Your task to perform on an android device: open app "Cash App" (install if not already installed) and go to login screen Image 0: 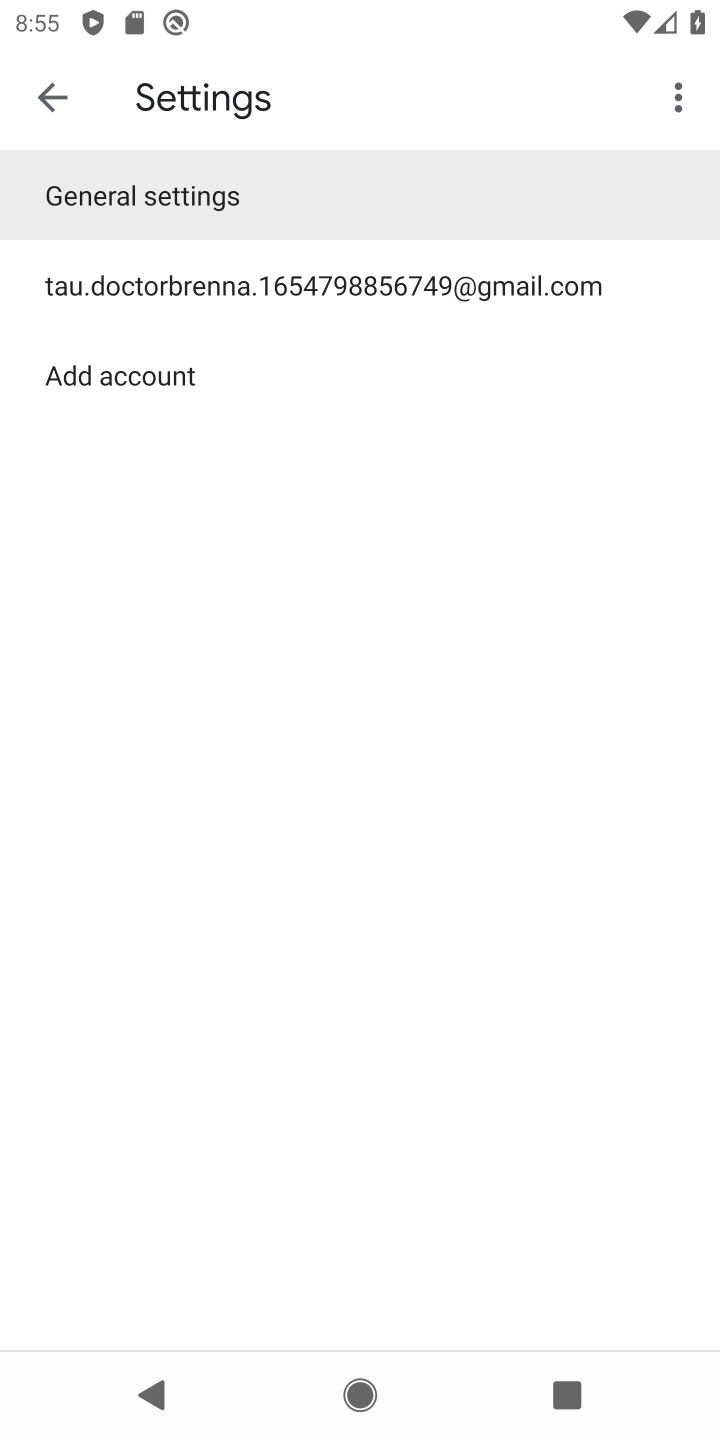
Step 0: press home button
Your task to perform on an android device: open app "Cash App" (install if not already installed) and go to login screen Image 1: 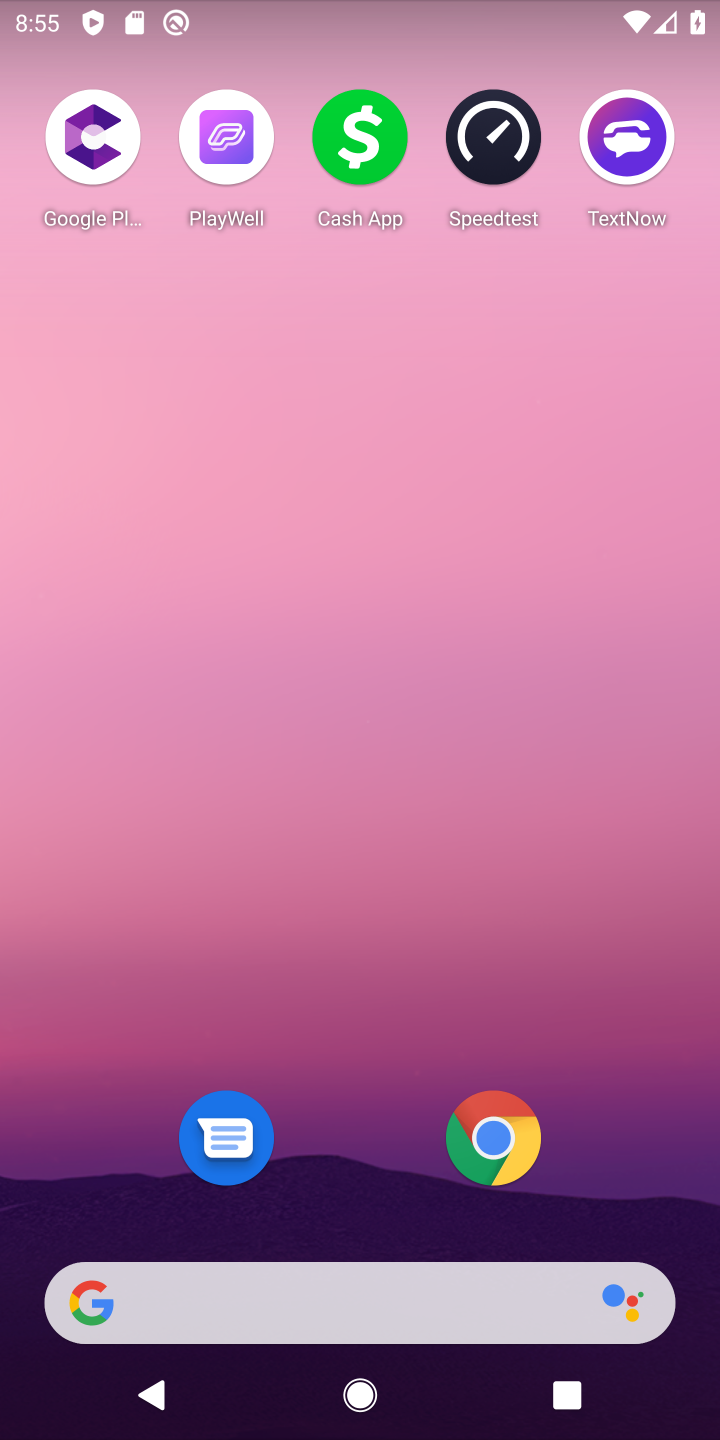
Step 1: drag from (654, 1182) to (592, 77)
Your task to perform on an android device: open app "Cash App" (install if not already installed) and go to login screen Image 2: 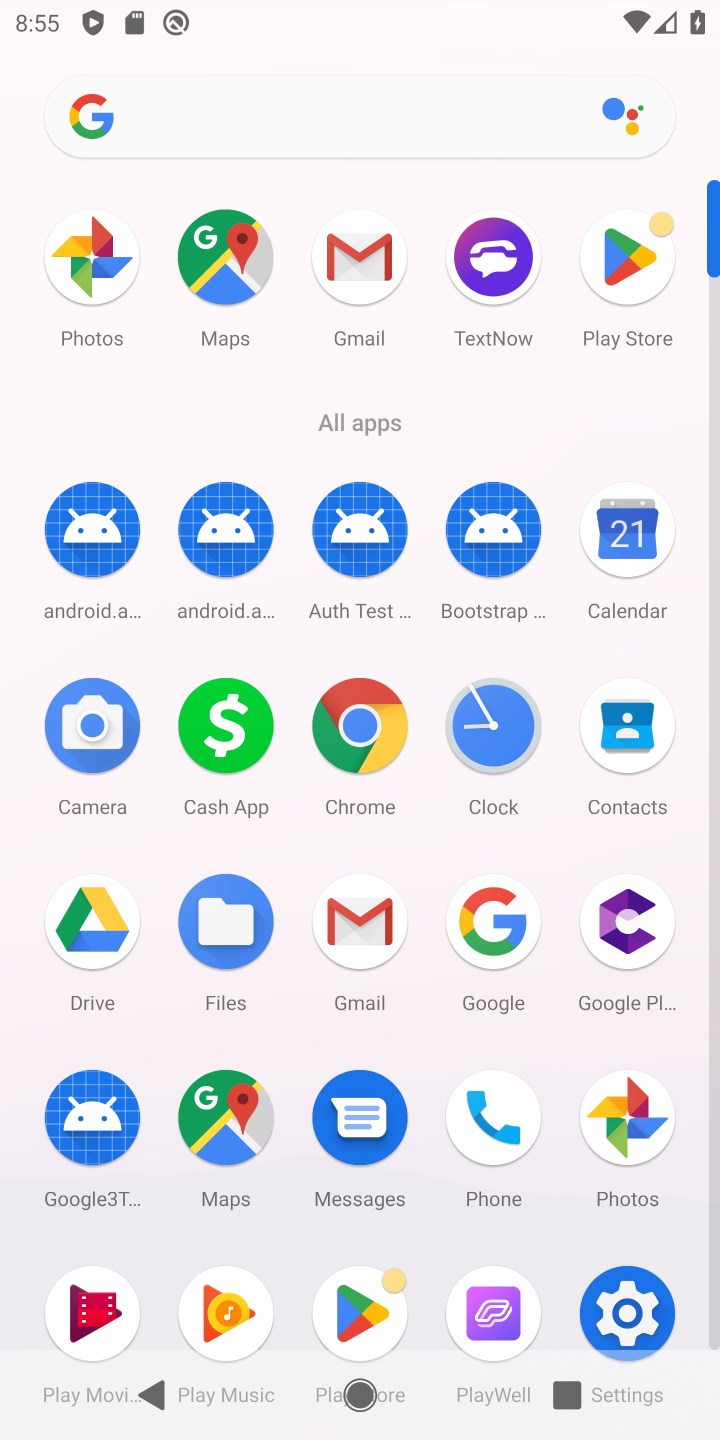
Step 2: click (629, 255)
Your task to perform on an android device: open app "Cash App" (install if not already installed) and go to login screen Image 3: 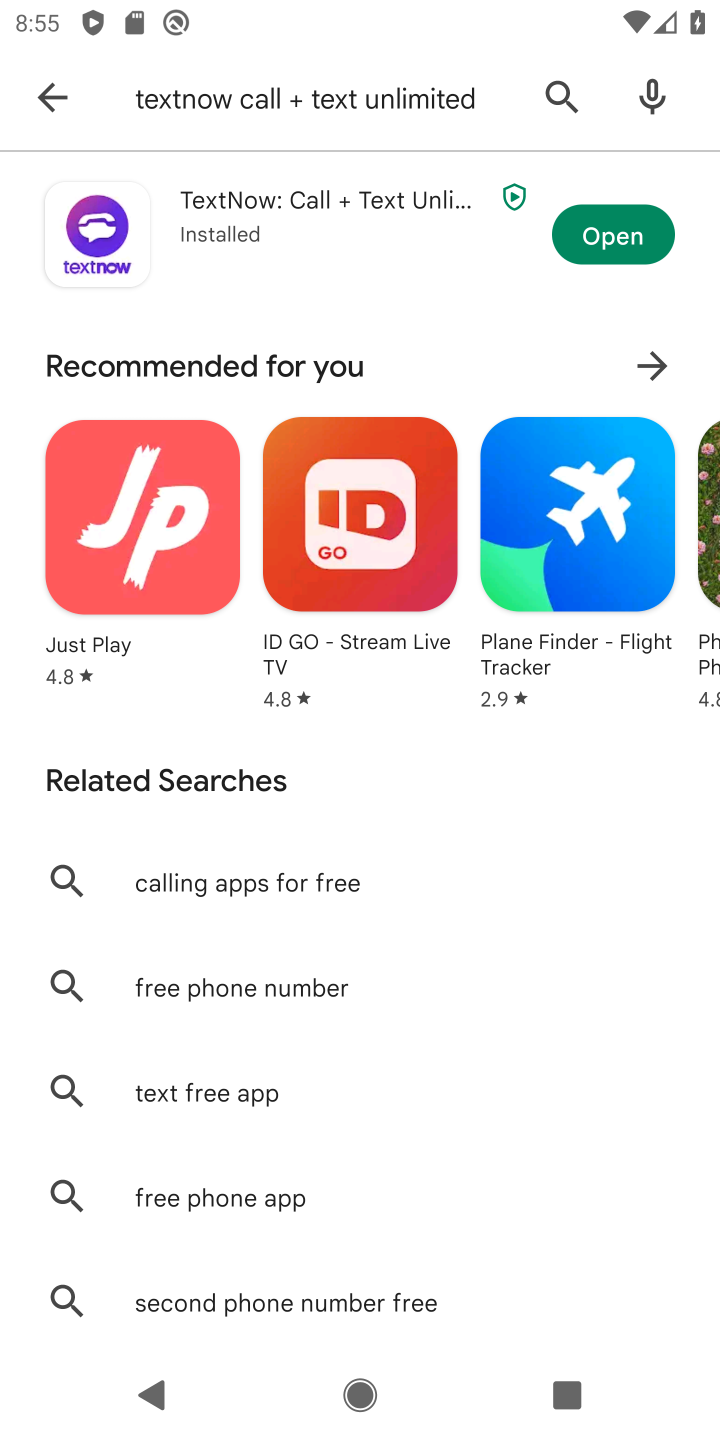
Step 3: press back button
Your task to perform on an android device: open app "Cash App" (install if not already installed) and go to login screen Image 4: 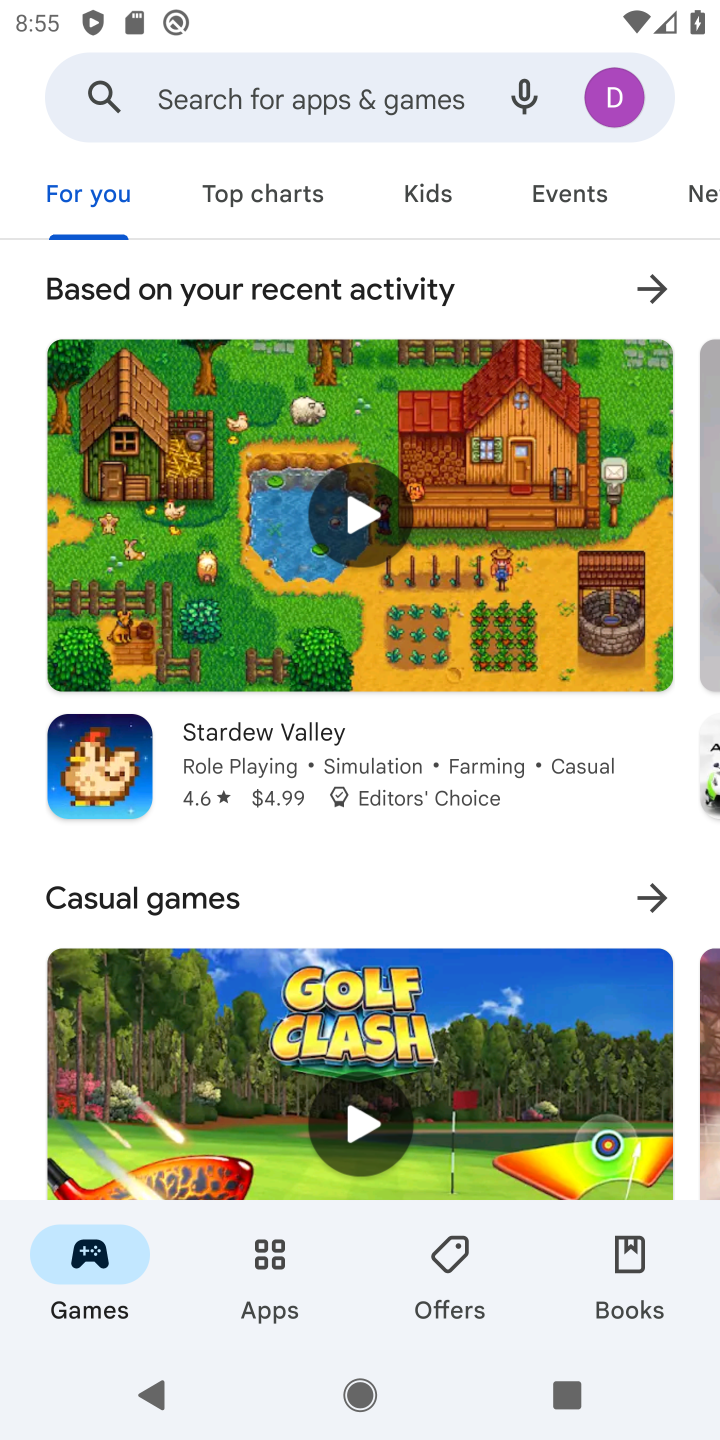
Step 4: click (349, 79)
Your task to perform on an android device: open app "Cash App" (install if not already installed) and go to login screen Image 5: 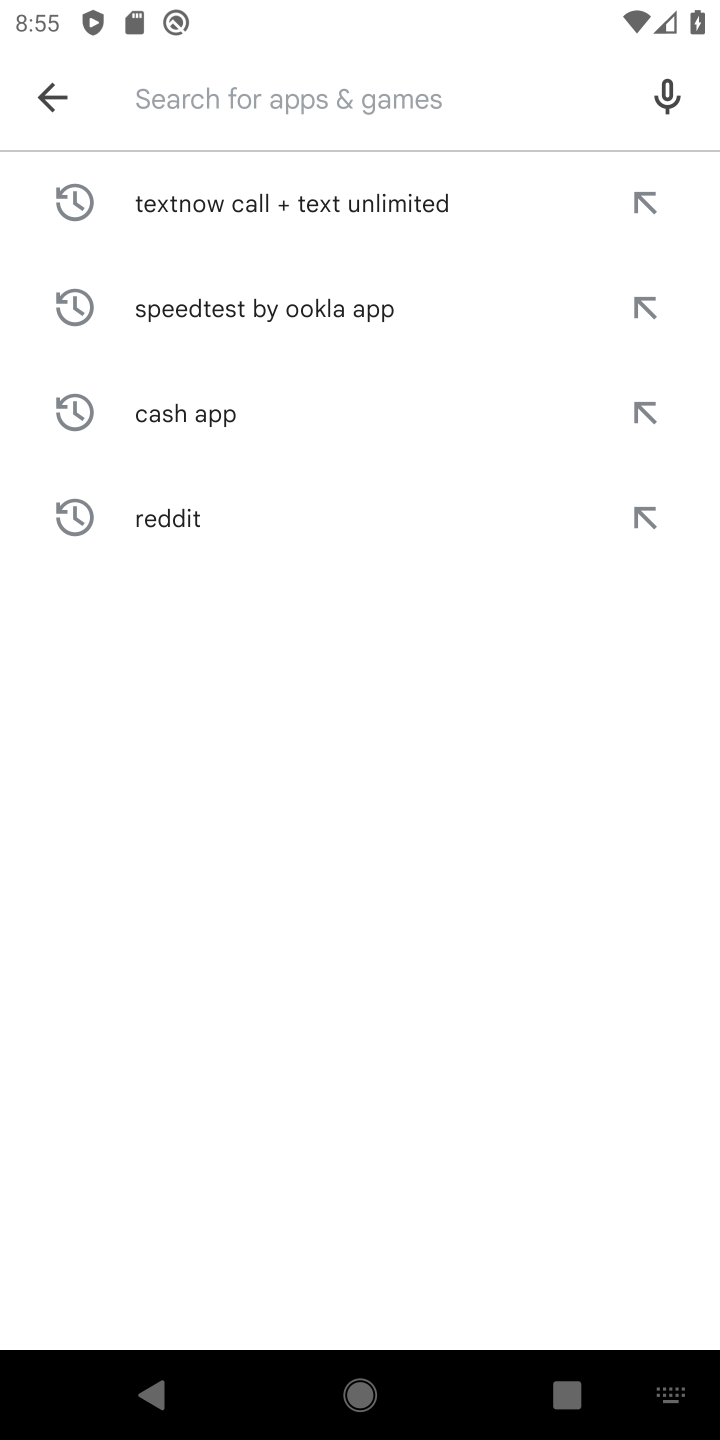
Step 5: press enter
Your task to perform on an android device: open app "Cash App" (install if not already installed) and go to login screen Image 6: 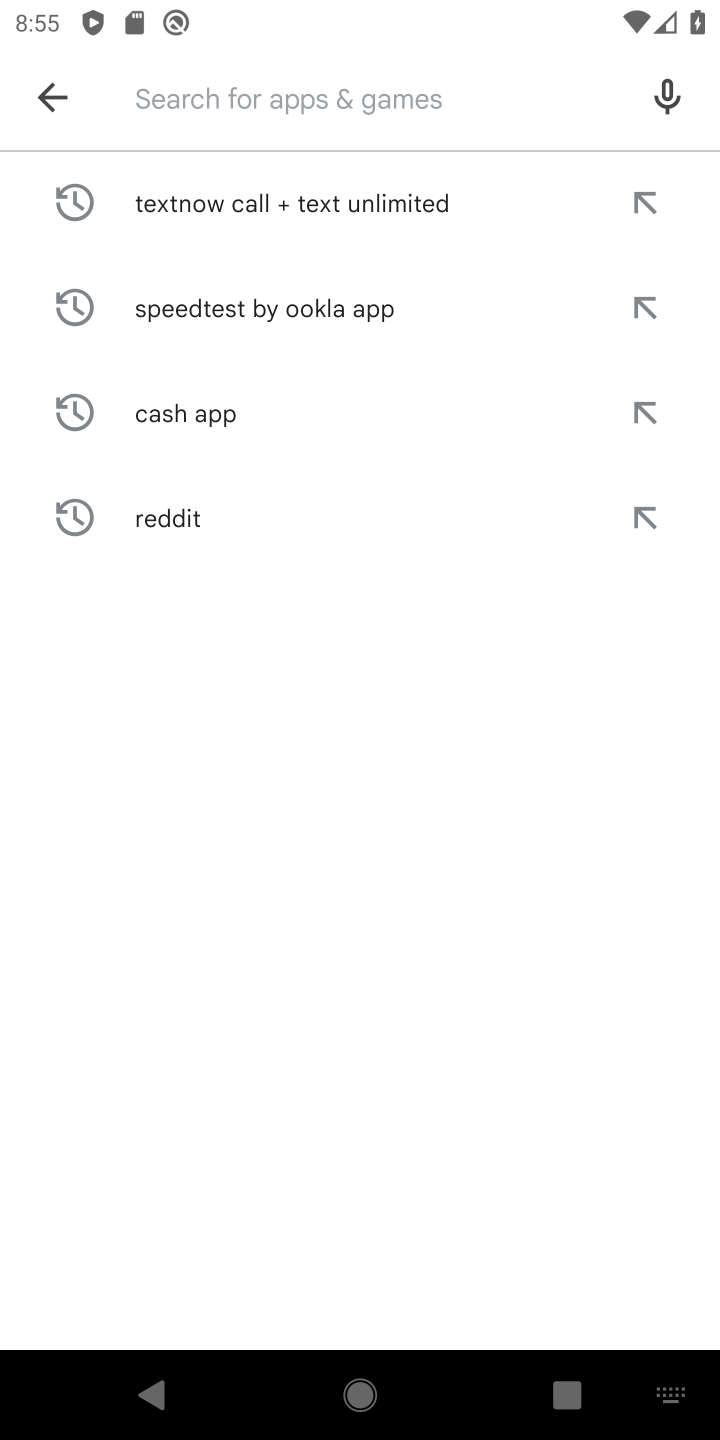
Step 6: type "cash app"
Your task to perform on an android device: open app "Cash App" (install if not already installed) and go to login screen Image 7: 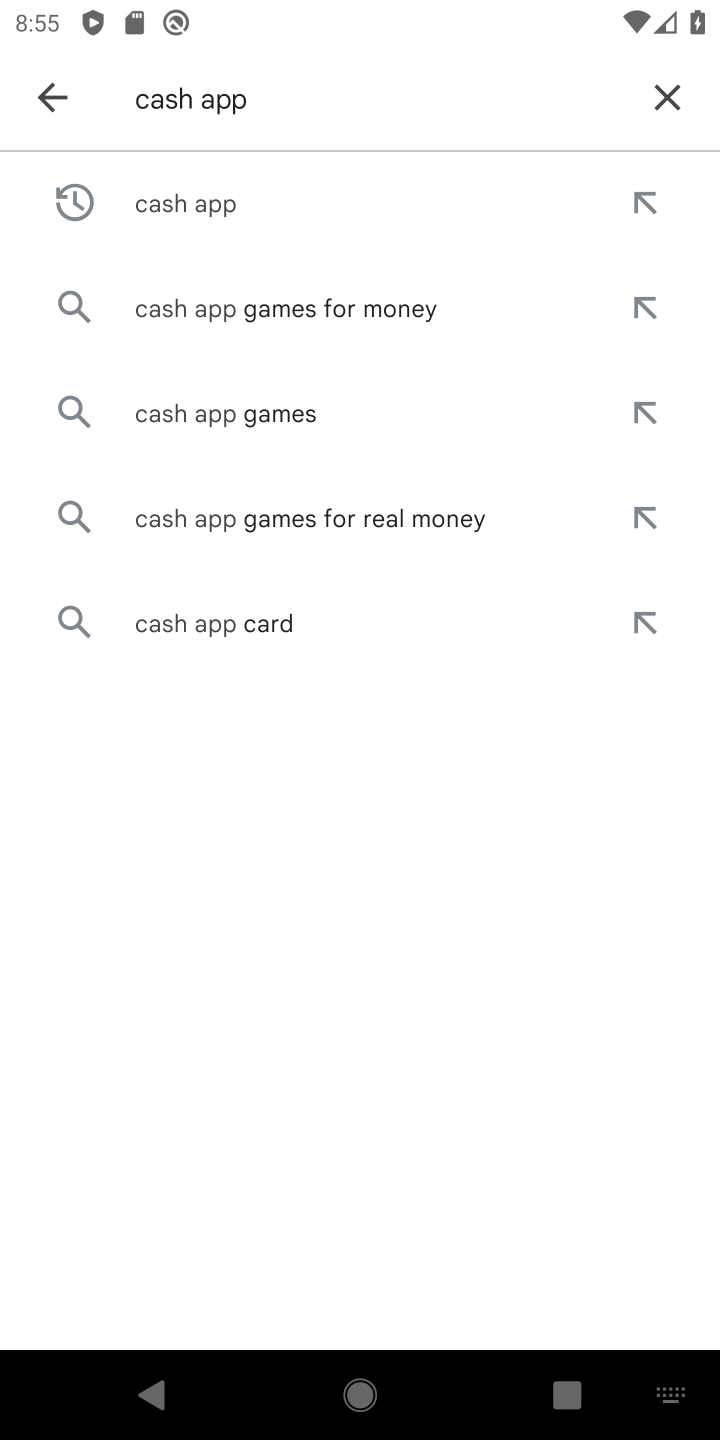
Step 7: click (323, 191)
Your task to perform on an android device: open app "Cash App" (install if not already installed) and go to login screen Image 8: 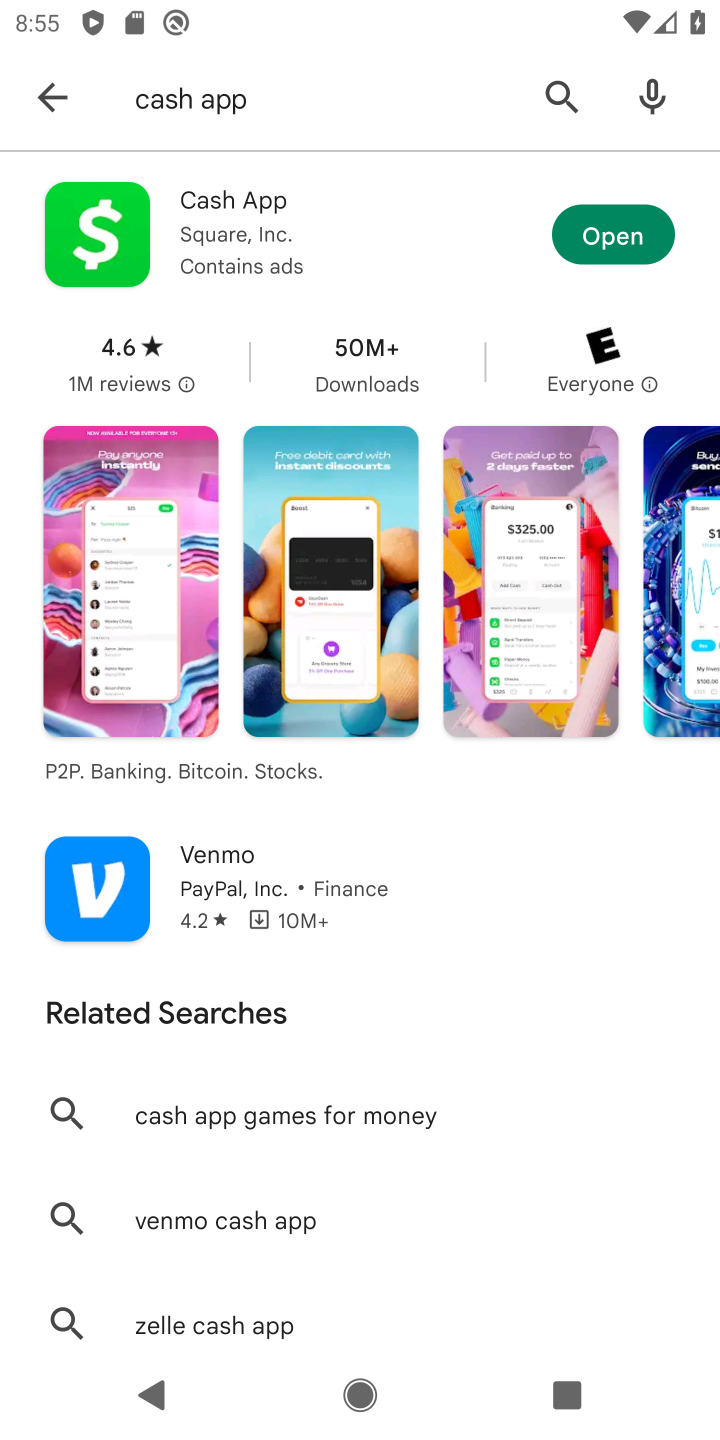
Step 8: click (587, 233)
Your task to perform on an android device: open app "Cash App" (install if not already installed) and go to login screen Image 9: 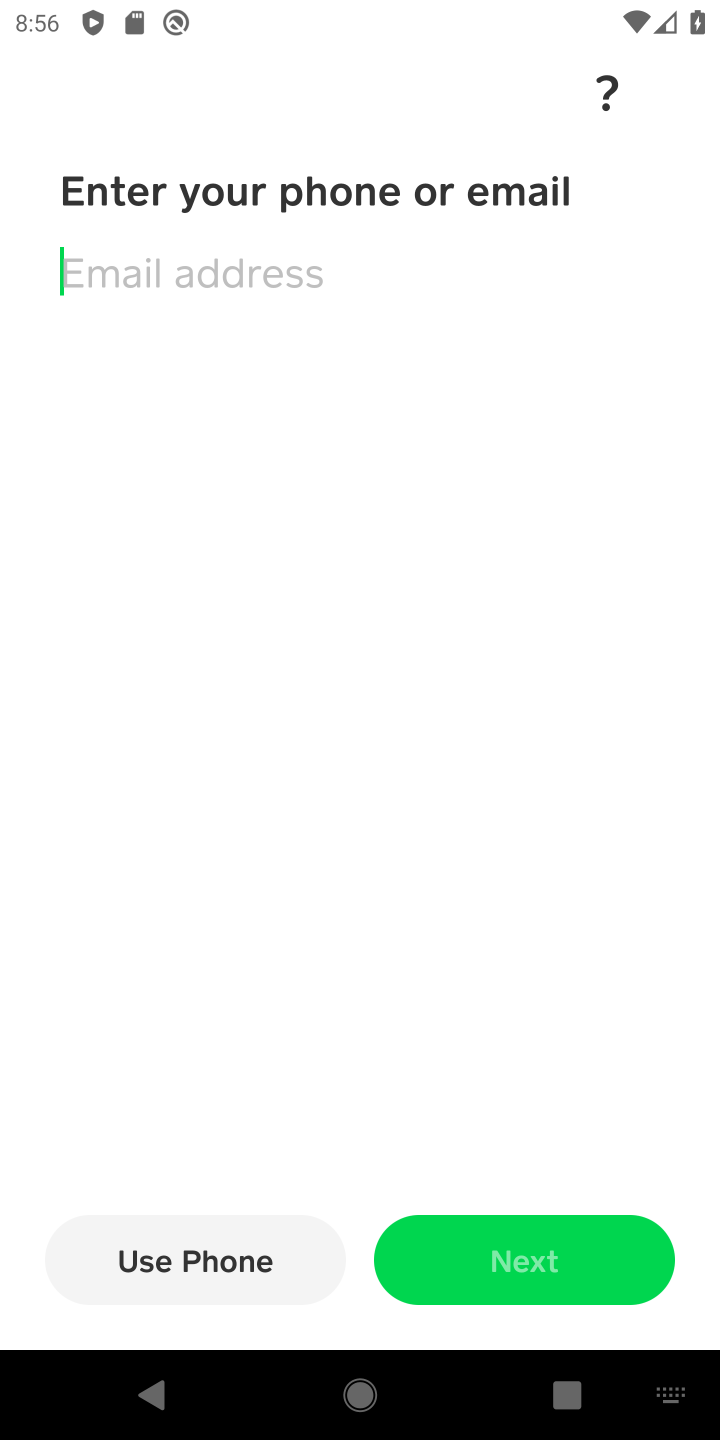
Step 9: task complete